Your task to perform on an android device: find photos in the google photos app Image 0: 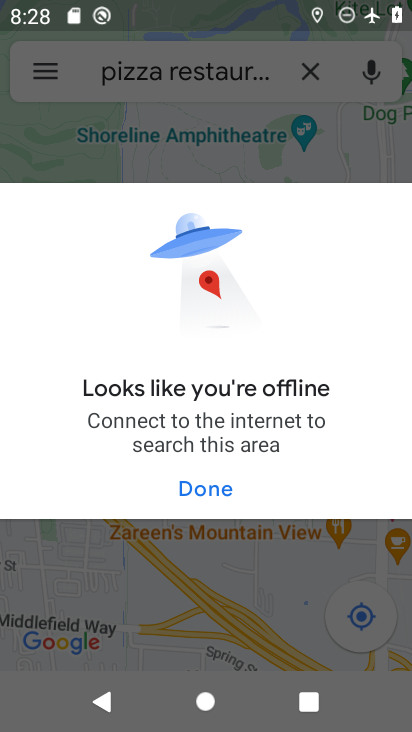
Step 0: task impossible